Your task to perform on an android device: Search for usb-c to usb-a on ebay.com, select the first entry, and add it to the cart. Image 0: 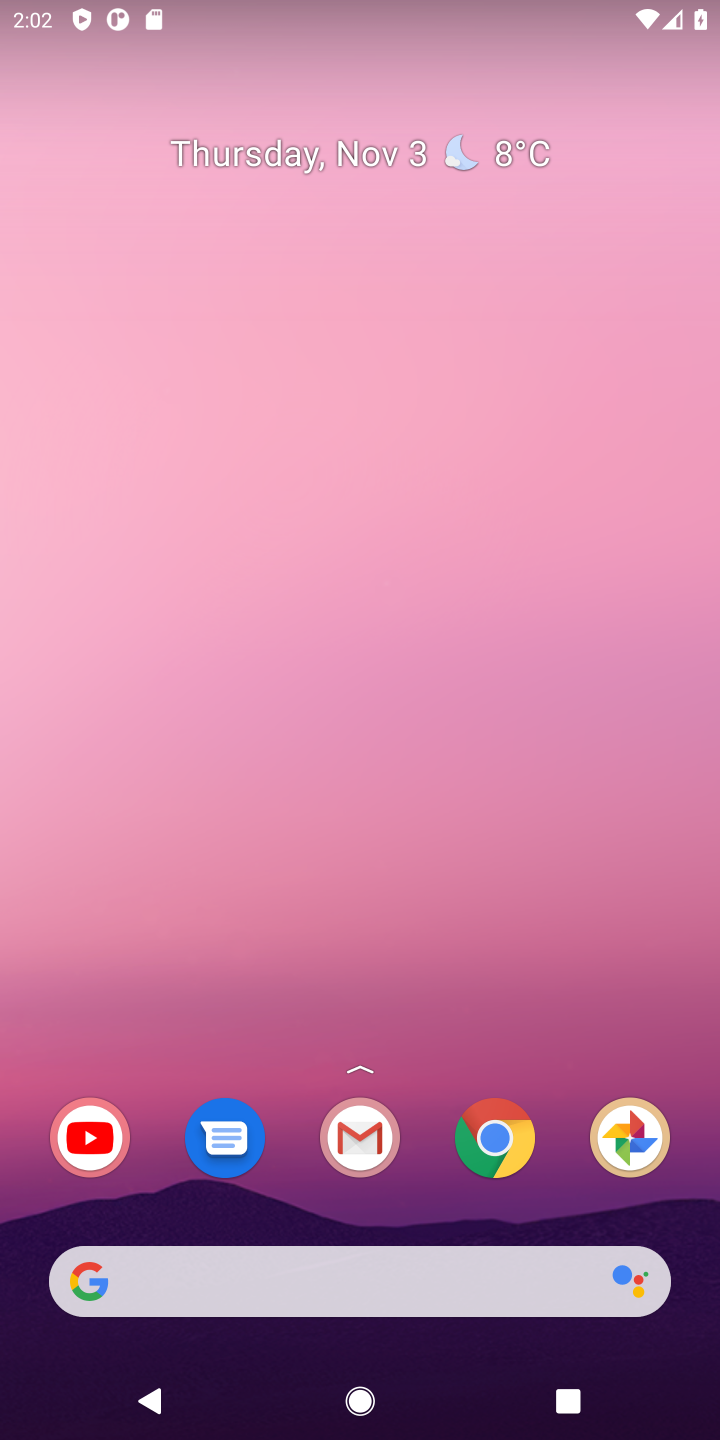
Step 0: click (452, 1156)
Your task to perform on an android device: Search for usb-c to usb-a on ebay.com, select the first entry, and add it to the cart. Image 1: 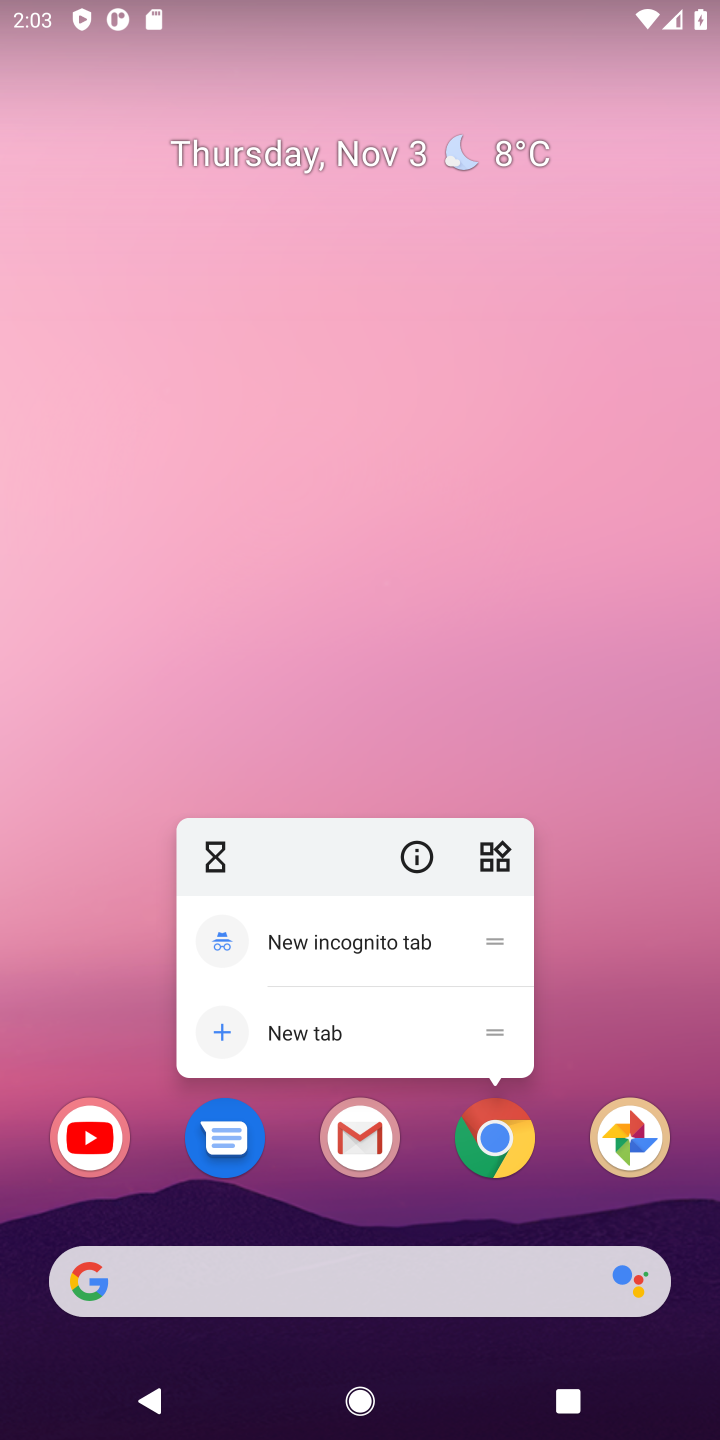
Step 1: click (500, 1135)
Your task to perform on an android device: Search for usb-c to usb-a on ebay.com, select the first entry, and add it to the cart. Image 2: 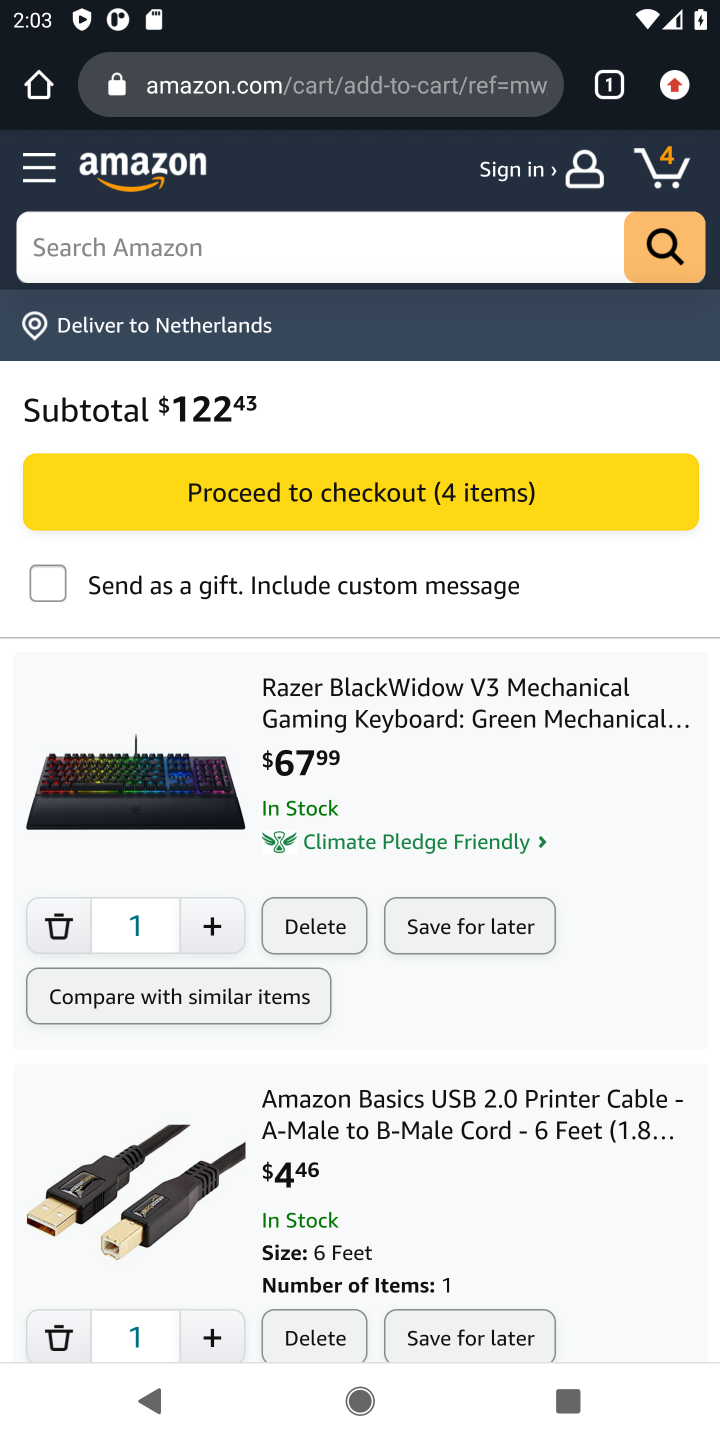
Step 2: click (229, 105)
Your task to perform on an android device: Search for usb-c to usb-a on ebay.com, select the first entry, and add it to the cart. Image 3: 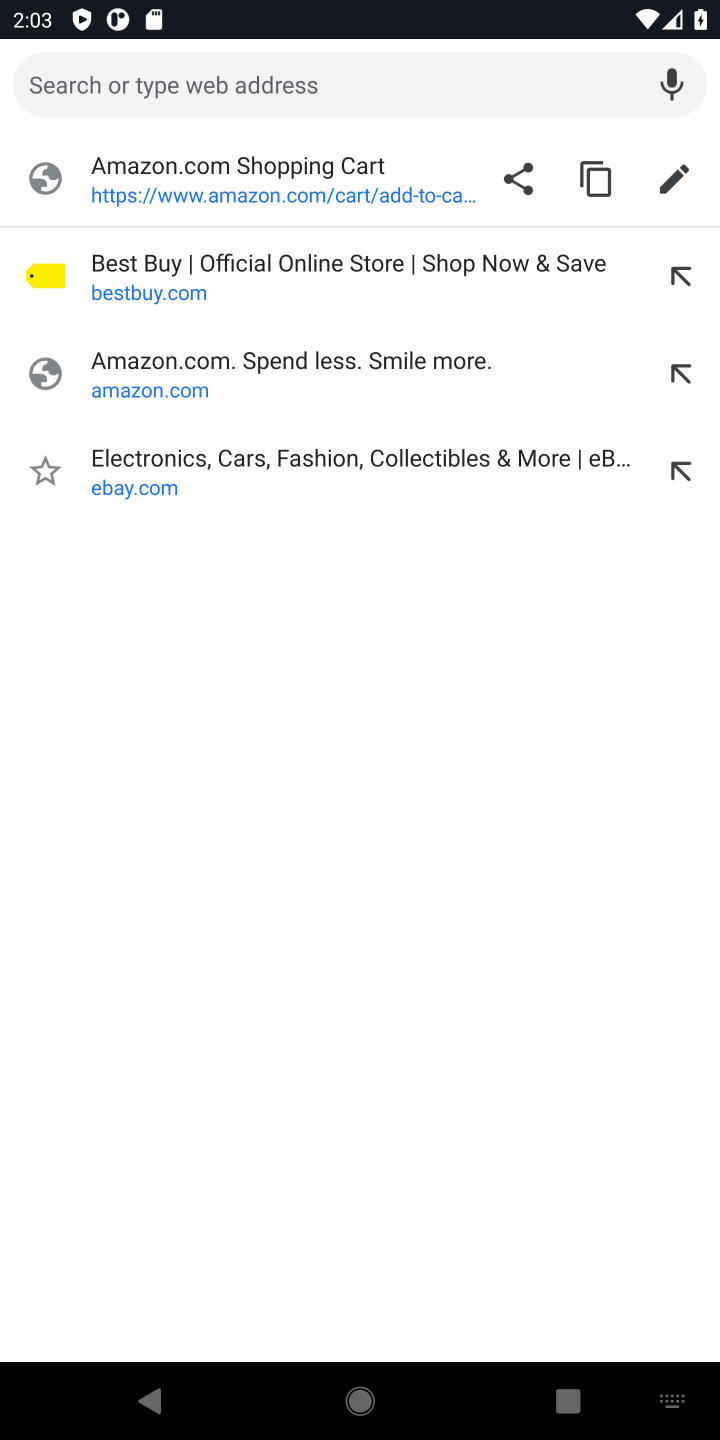
Step 3: type "ebay"
Your task to perform on an android device: Search for usb-c to usb-a on ebay.com, select the first entry, and add it to the cart. Image 4: 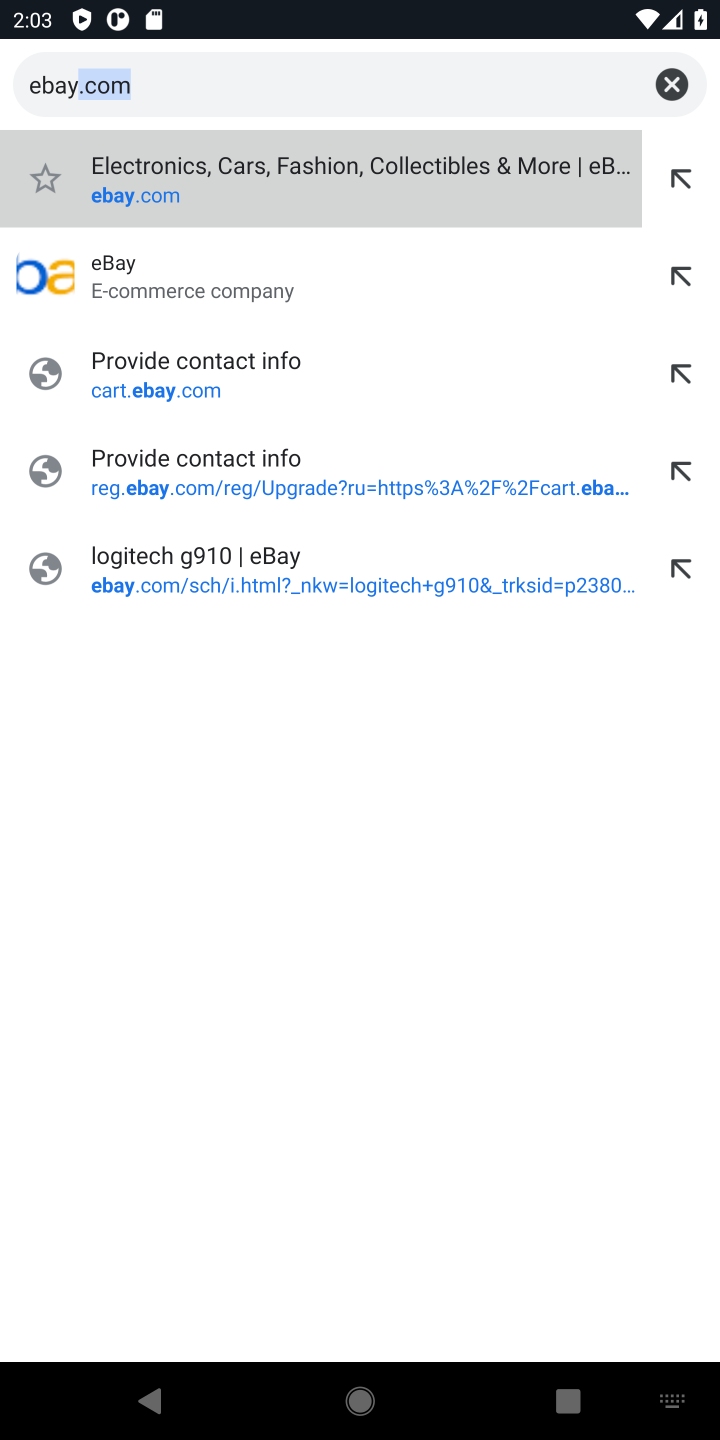
Step 4: click (195, 292)
Your task to perform on an android device: Search for usb-c to usb-a on ebay.com, select the first entry, and add it to the cart. Image 5: 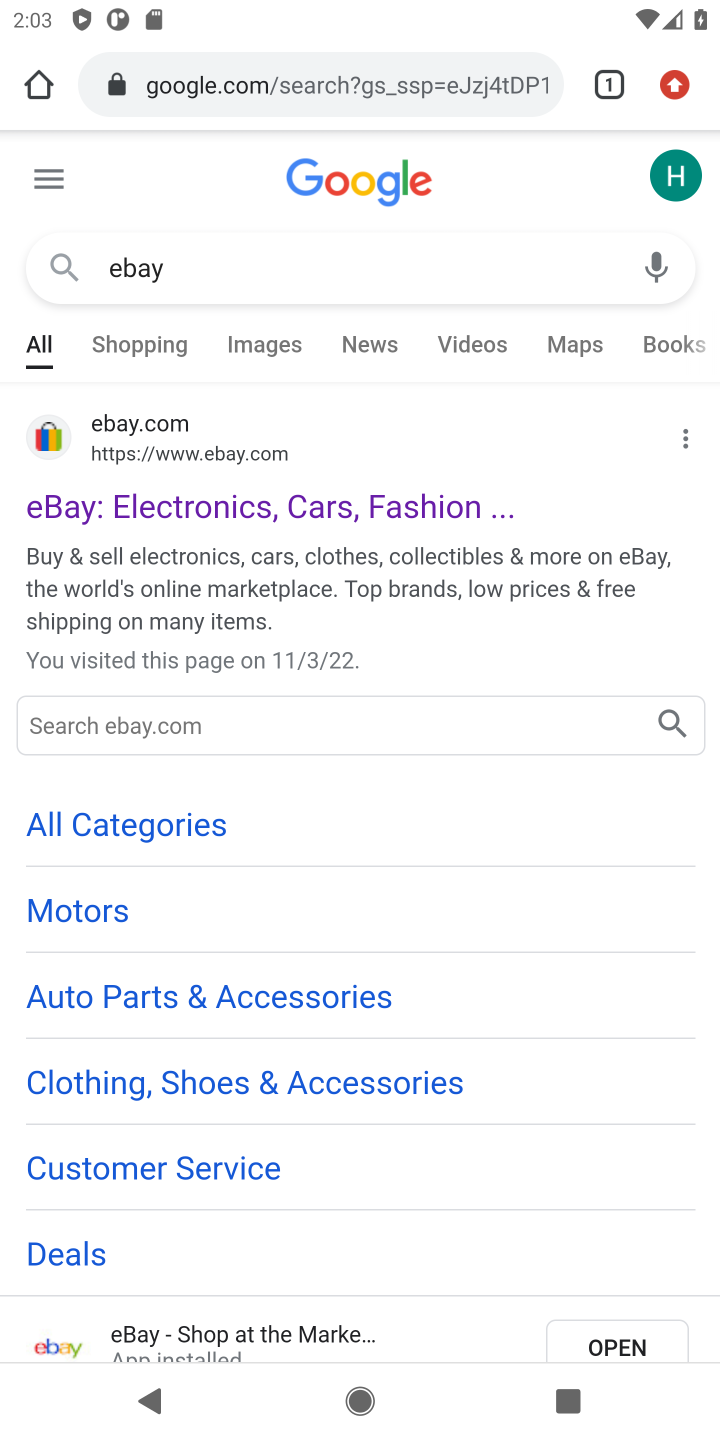
Step 5: click (313, 495)
Your task to perform on an android device: Search for usb-c to usb-a on ebay.com, select the first entry, and add it to the cart. Image 6: 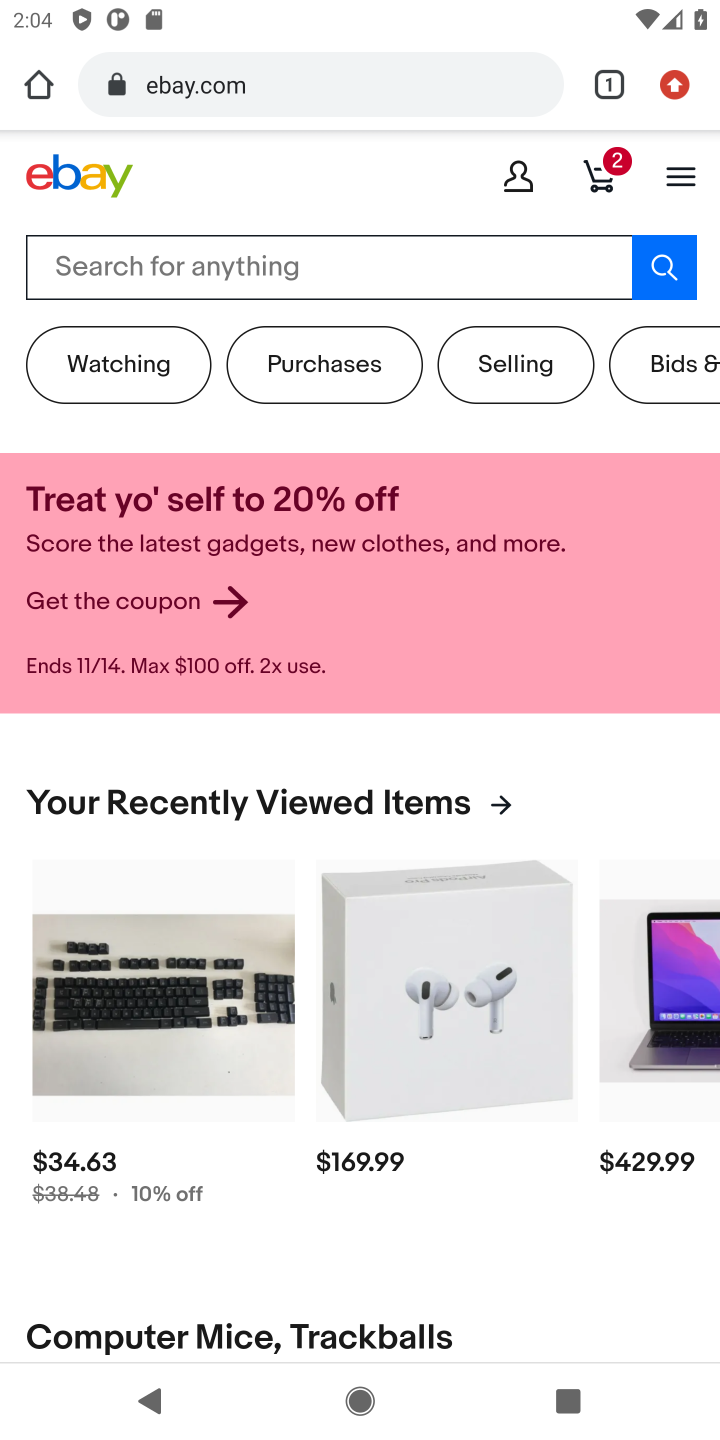
Step 6: type " usb-c to usb-a "
Your task to perform on an android device: Search for usb-c to usb-a on ebay.com, select the first entry, and add it to the cart. Image 7: 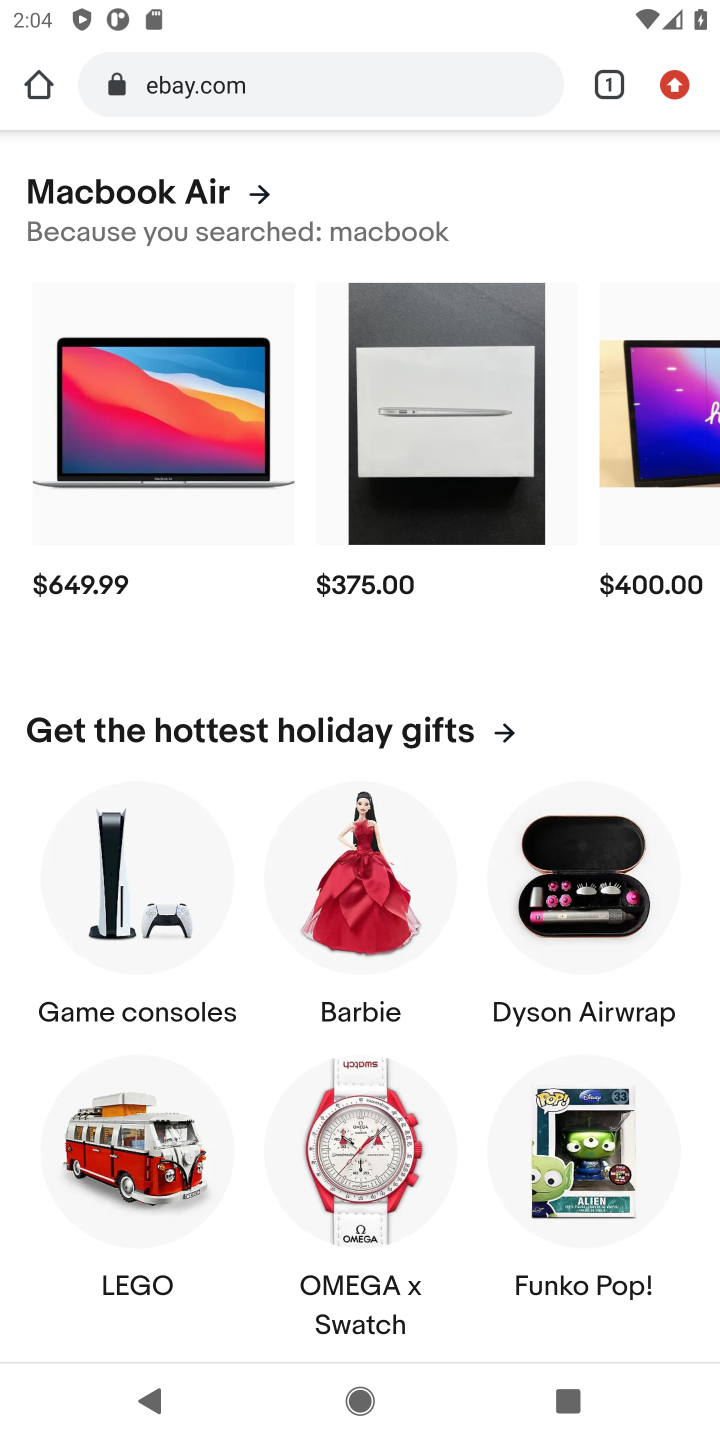
Step 7: drag from (362, 1123) to (342, 1222)
Your task to perform on an android device: Search for usb-c to usb-a on ebay.com, select the first entry, and add it to the cart. Image 8: 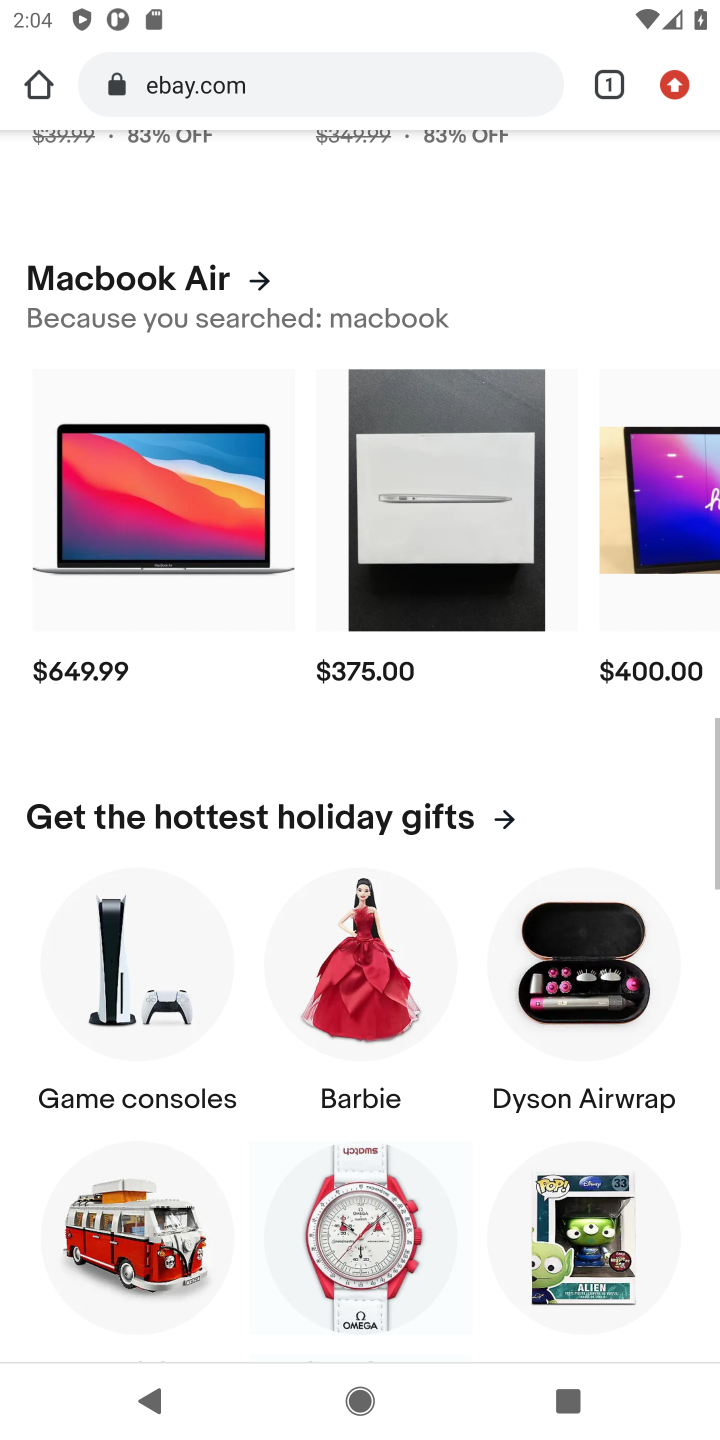
Step 8: drag from (439, 435) to (478, 1206)
Your task to perform on an android device: Search for usb-c to usb-a on ebay.com, select the first entry, and add it to the cart. Image 9: 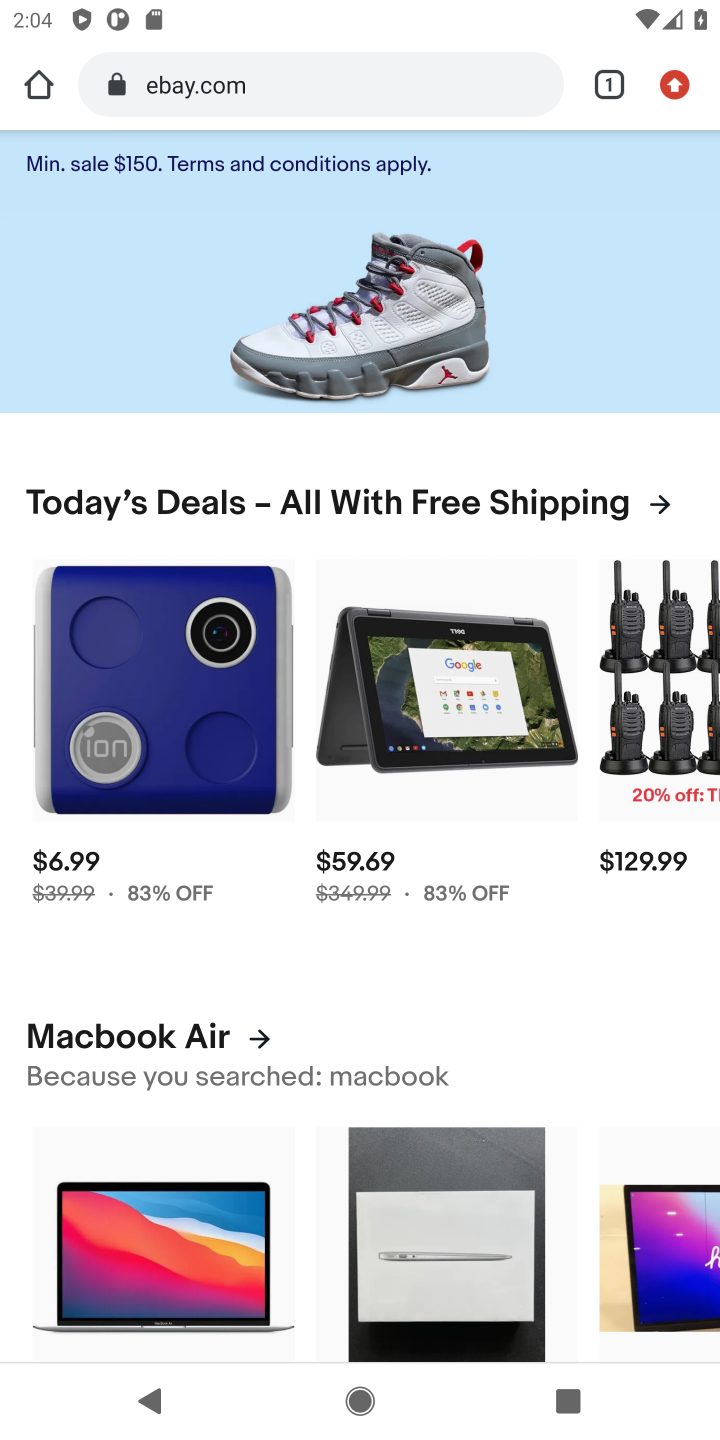
Step 9: drag from (233, 192) to (361, 1126)
Your task to perform on an android device: Search for usb-c to usb-a on ebay.com, select the first entry, and add it to the cart. Image 10: 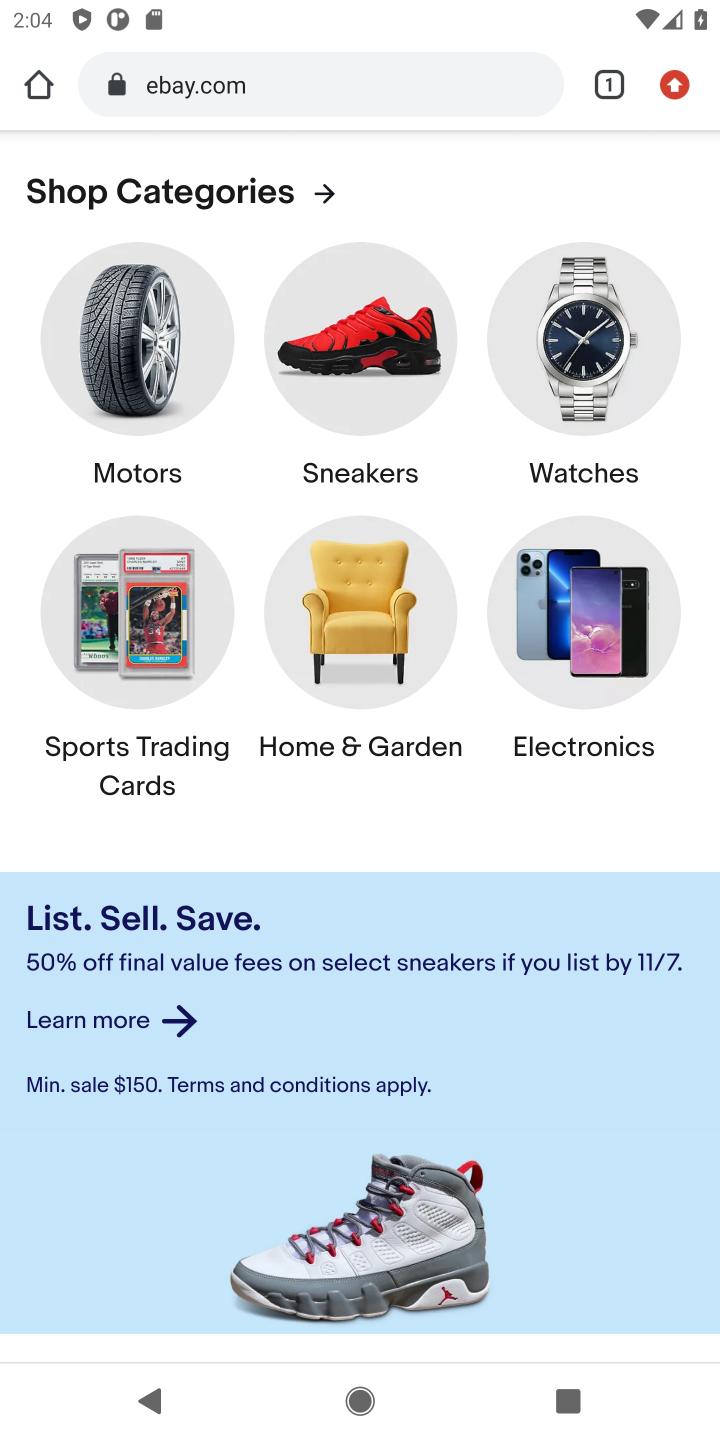
Step 10: drag from (296, 259) to (661, 1110)
Your task to perform on an android device: Search for usb-c to usb-a on ebay.com, select the first entry, and add it to the cart. Image 11: 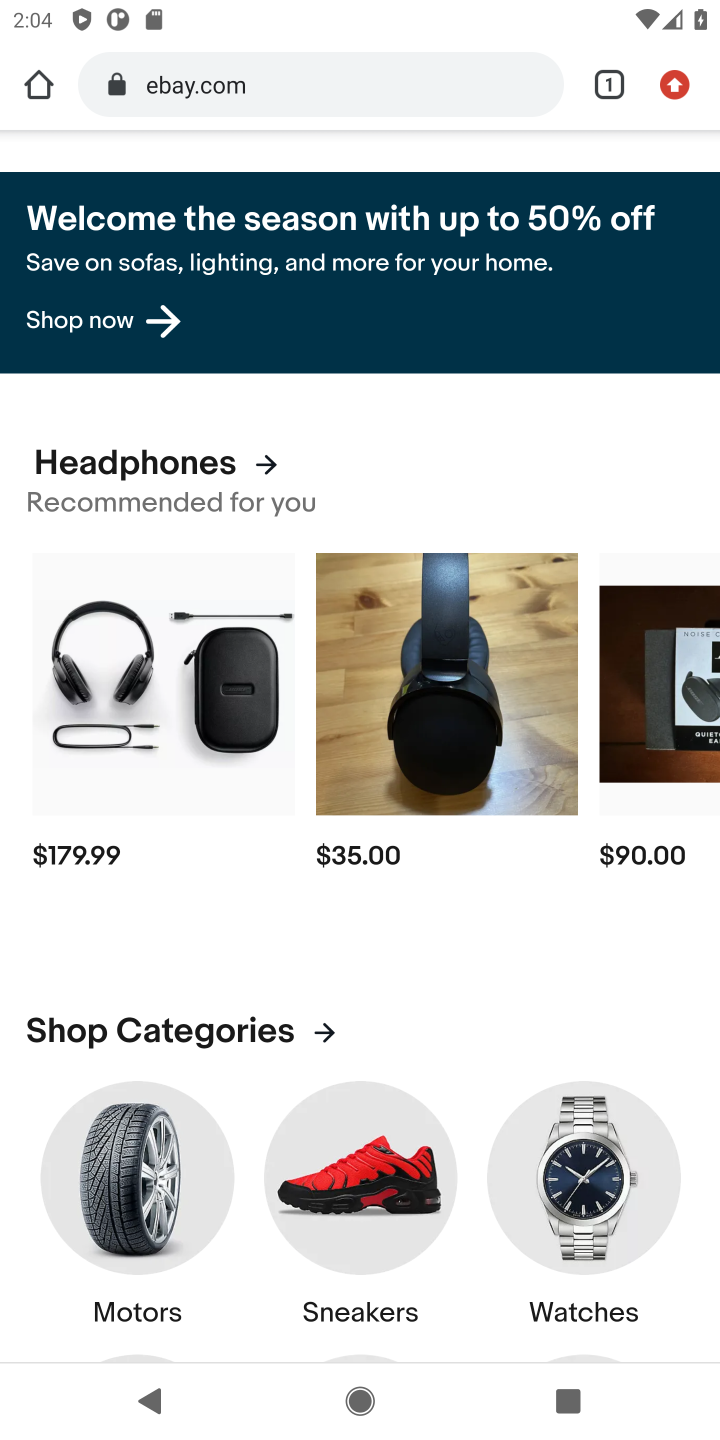
Step 11: press back button
Your task to perform on an android device: Search for usb-c to usb-a on ebay.com, select the first entry, and add it to the cart. Image 12: 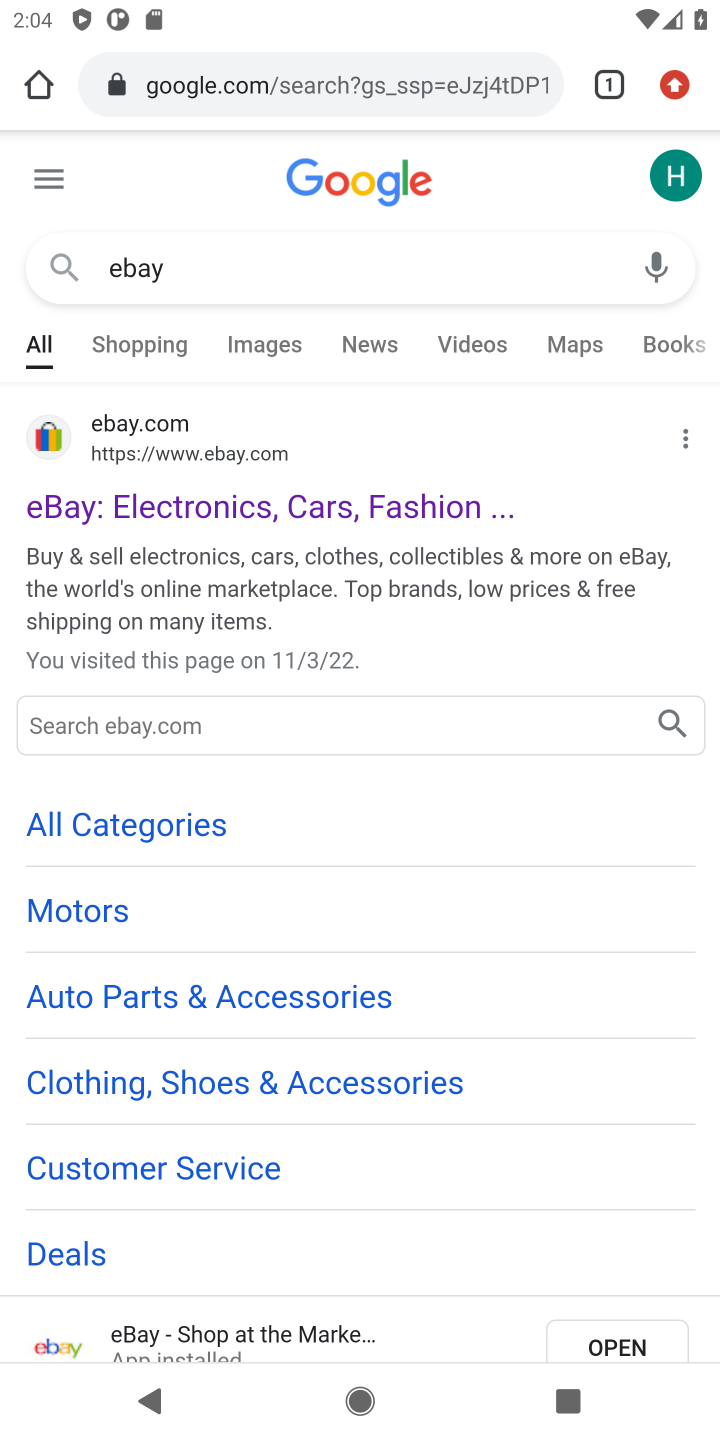
Step 12: click (52, 497)
Your task to perform on an android device: Search for usb-c to usb-a on ebay.com, select the first entry, and add it to the cart. Image 13: 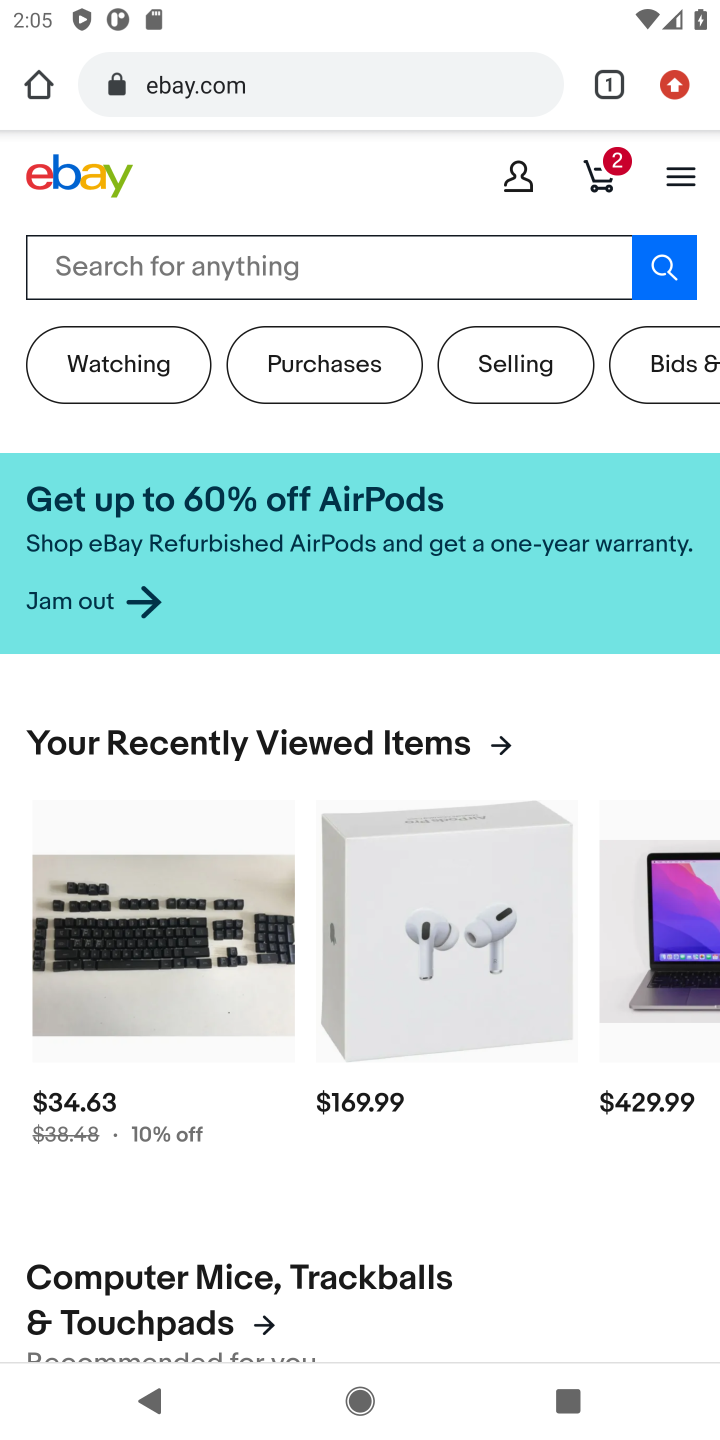
Step 13: click (403, 243)
Your task to perform on an android device: Search for usb-c to usb-a on ebay.com, select the first entry, and add it to the cart. Image 14: 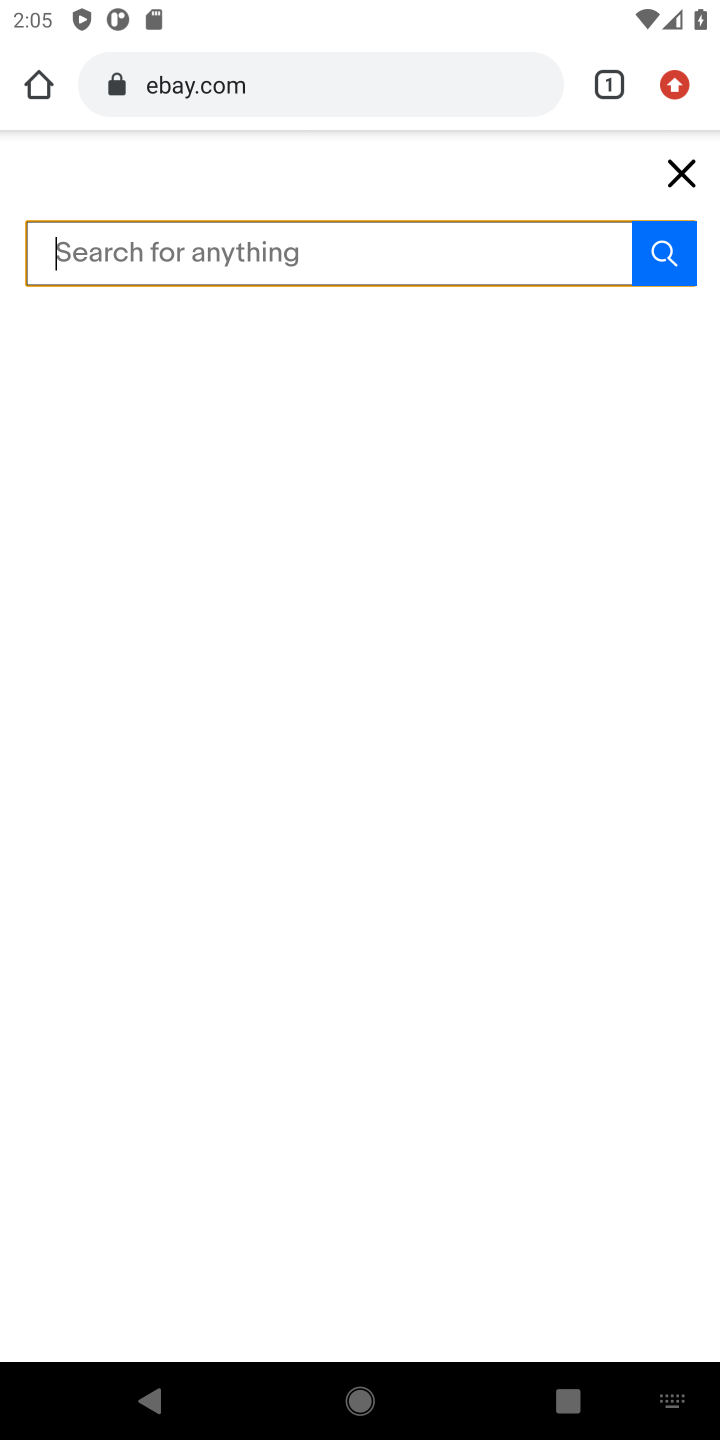
Step 14: type " usb-c to usb-a"
Your task to perform on an android device: Search for usb-c to usb-a on ebay.com, select the first entry, and add it to the cart. Image 15: 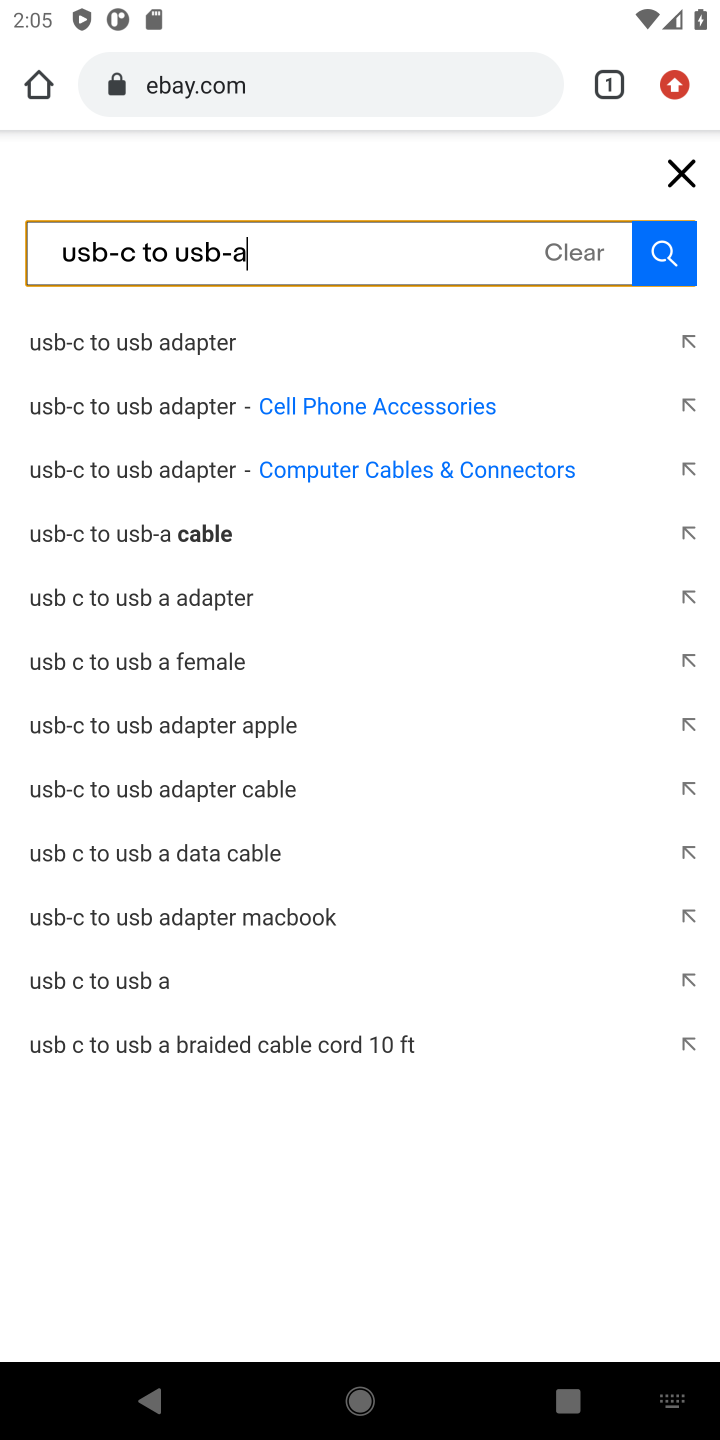
Step 15: click (638, 264)
Your task to perform on an android device: Search for usb-c to usb-a on ebay.com, select the first entry, and add it to the cart. Image 16: 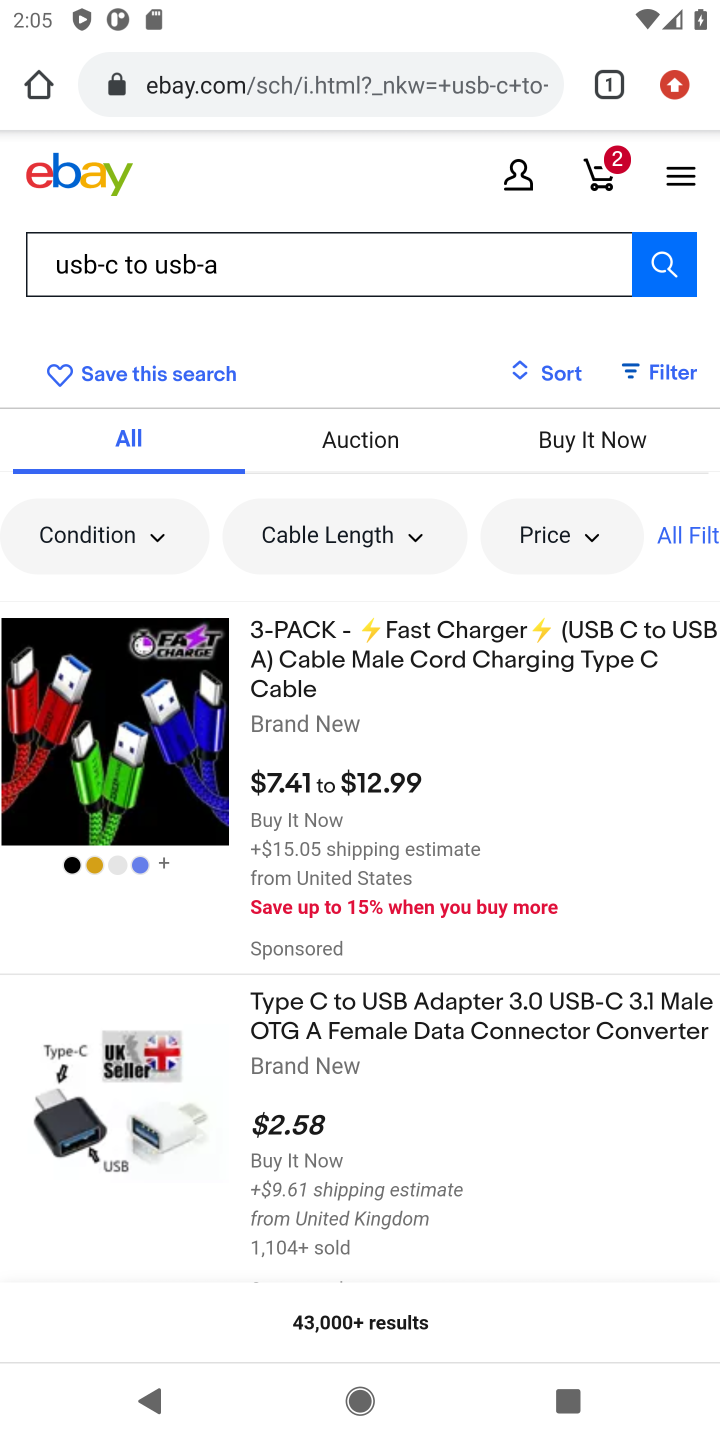
Step 16: click (543, 651)
Your task to perform on an android device: Search for usb-c to usb-a on ebay.com, select the first entry, and add it to the cart. Image 17: 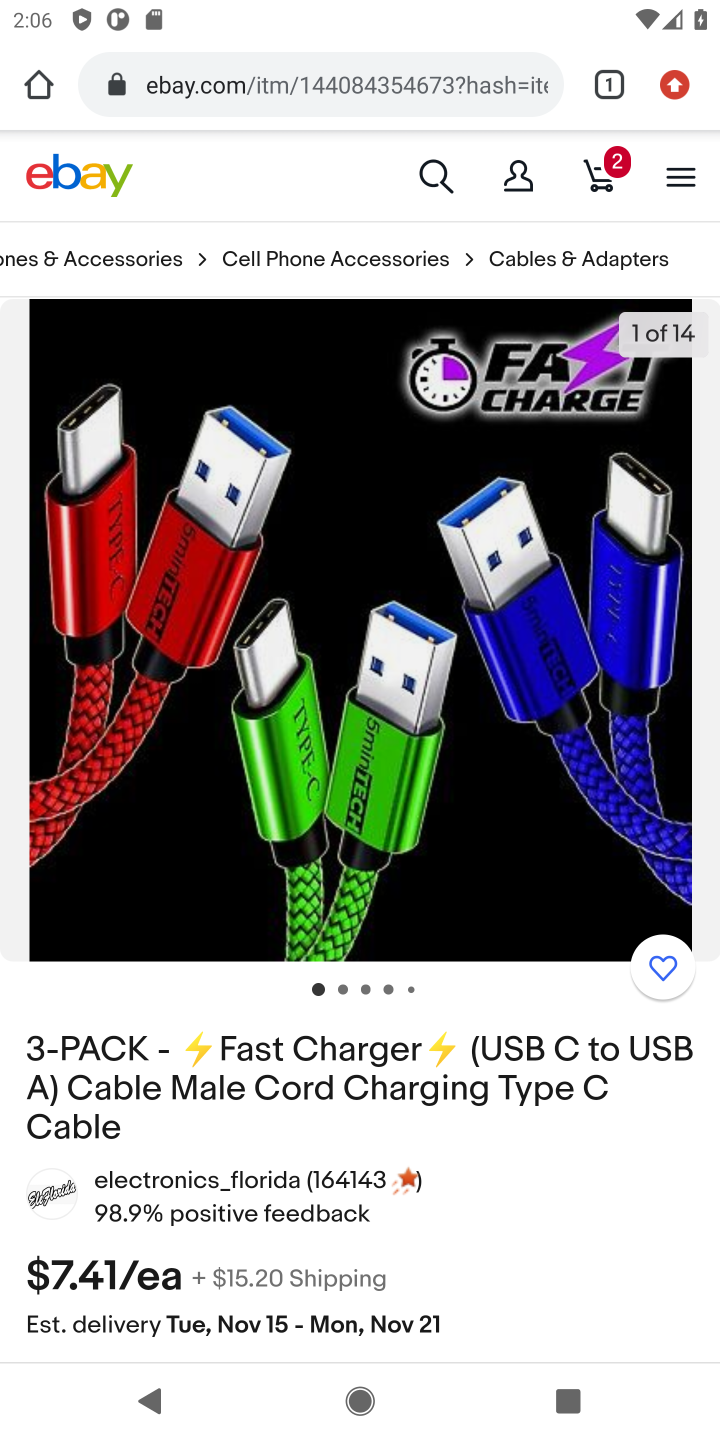
Step 17: drag from (290, 1302) to (330, 268)
Your task to perform on an android device: Search for usb-c to usb-a on ebay.com, select the first entry, and add it to the cart. Image 18: 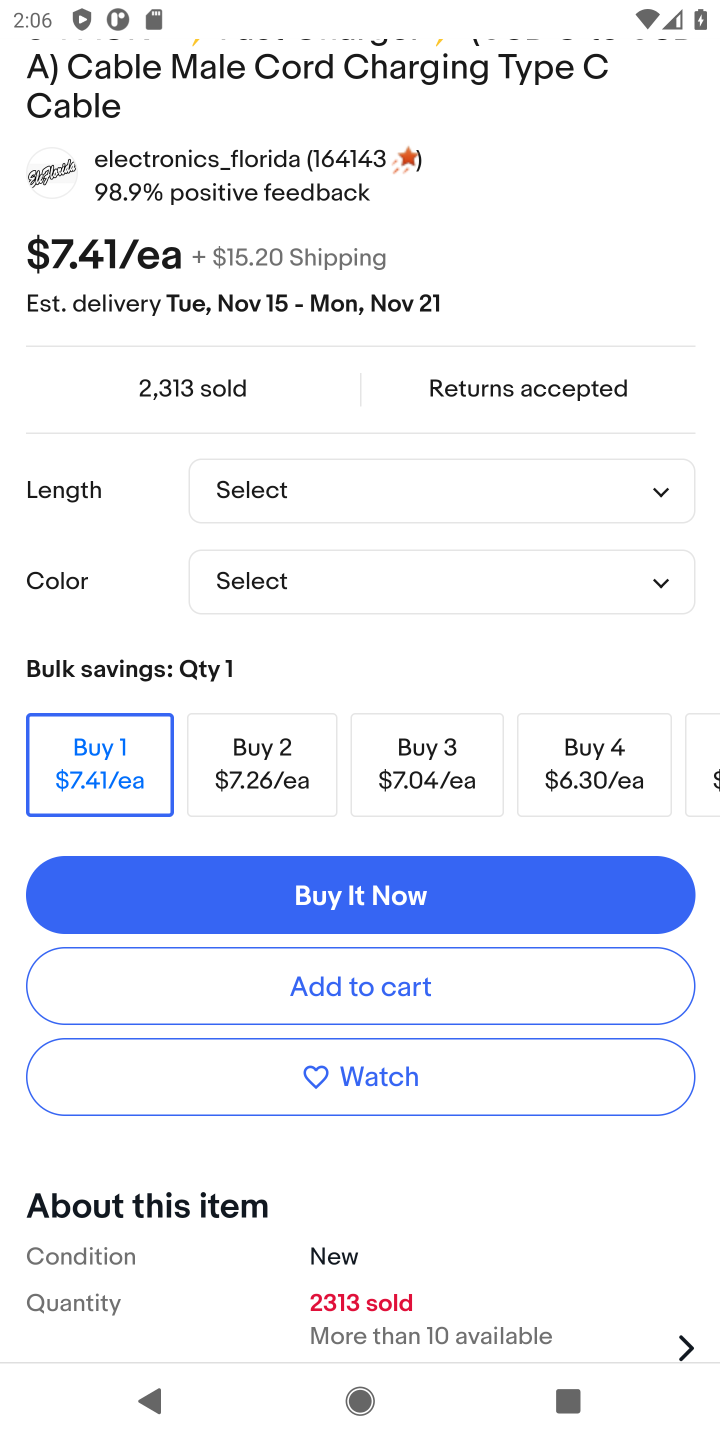
Step 18: click (300, 1009)
Your task to perform on an android device: Search for usb-c to usb-a on ebay.com, select the first entry, and add it to the cart. Image 19: 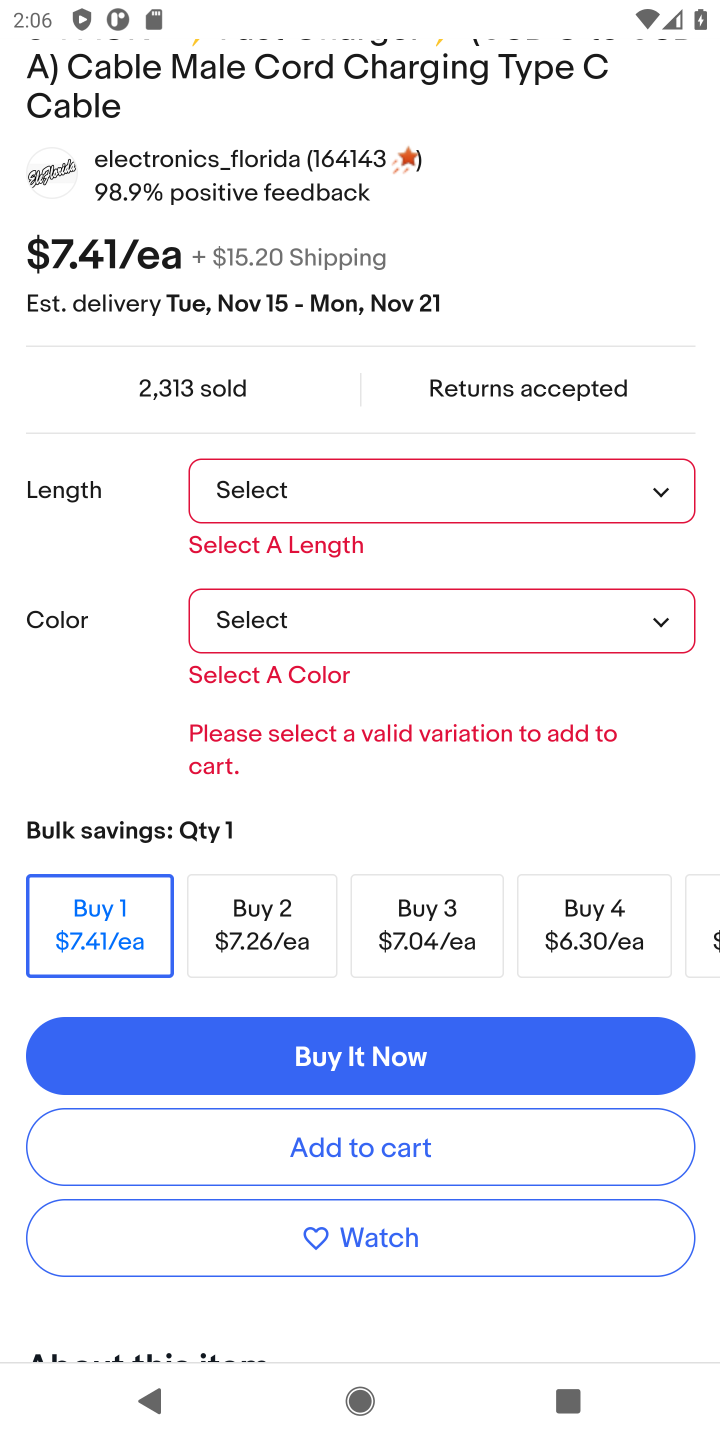
Step 19: click (402, 1131)
Your task to perform on an android device: Search for usb-c to usb-a on ebay.com, select the first entry, and add it to the cart. Image 20: 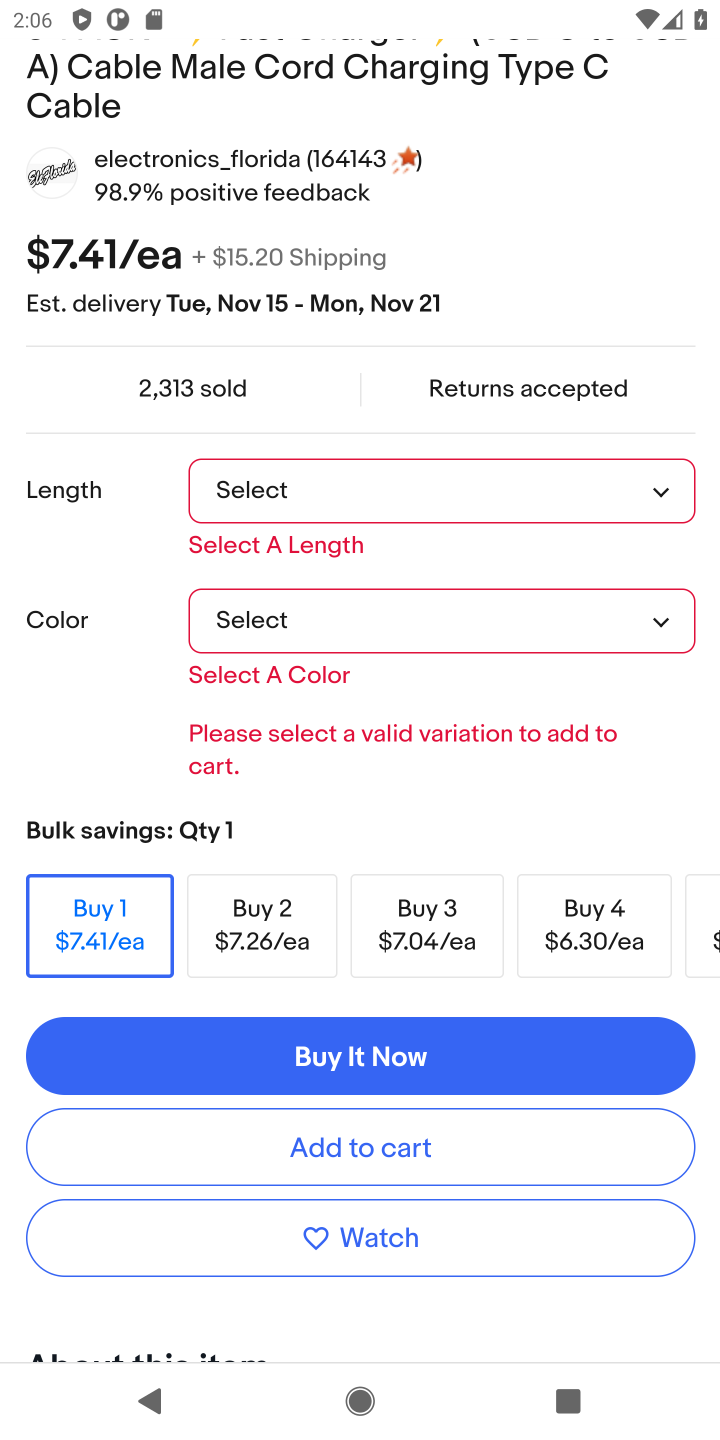
Step 20: click (448, 1132)
Your task to perform on an android device: Search for usb-c to usb-a on ebay.com, select the first entry, and add it to the cart. Image 21: 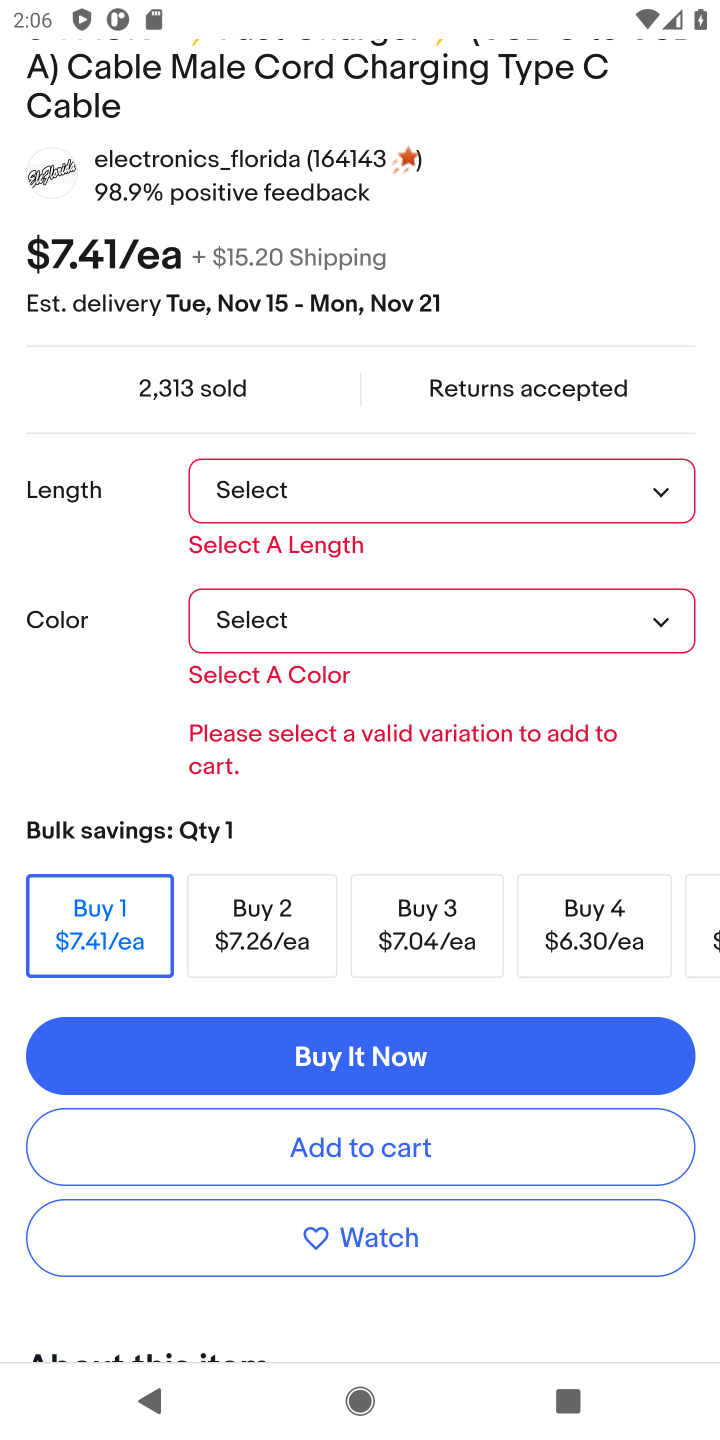
Step 21: click (448, 1132)
Your task to perform on an android device: Search for usb-c to usb-a on ebay.com, select the first entry, and add it to the cart. Image 22: 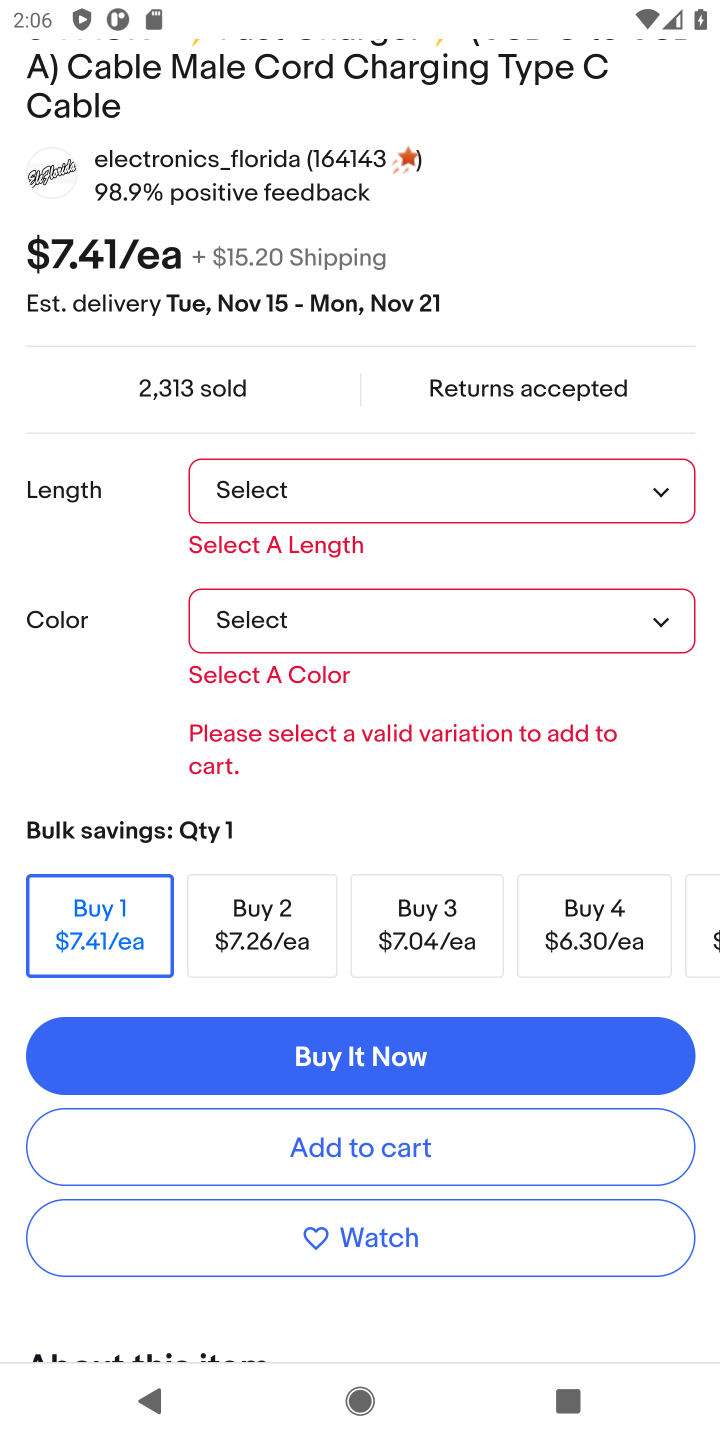
Step 22: click (626, 468)
Your task to perform on an android device: Search for usb-c to usb-a on ebay.com, select the first entry, and add it to the cart. Image 23: 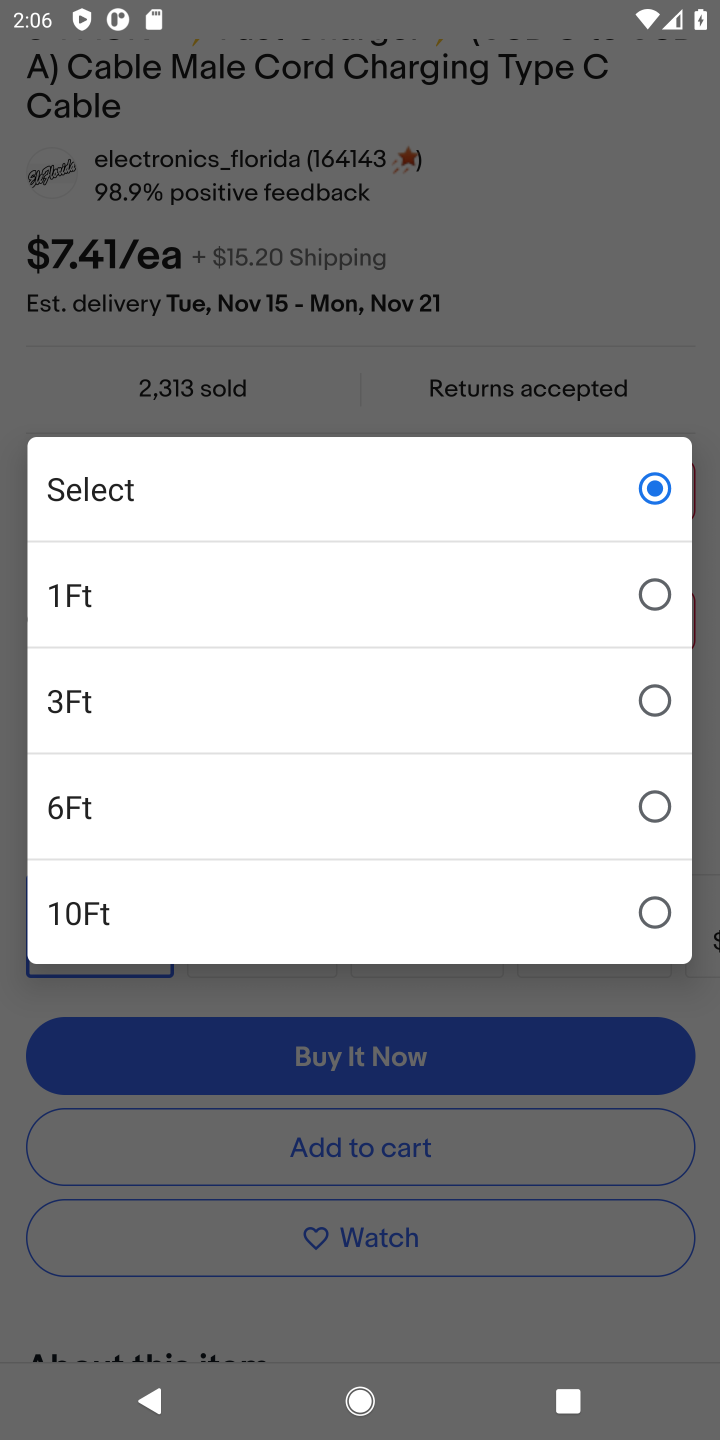
Step 23: click (560, 472)
Your task to perform on an android device: Search for usb-c to usb-a on ebay.com, select the first entry, and add it to the cart. Image 24: 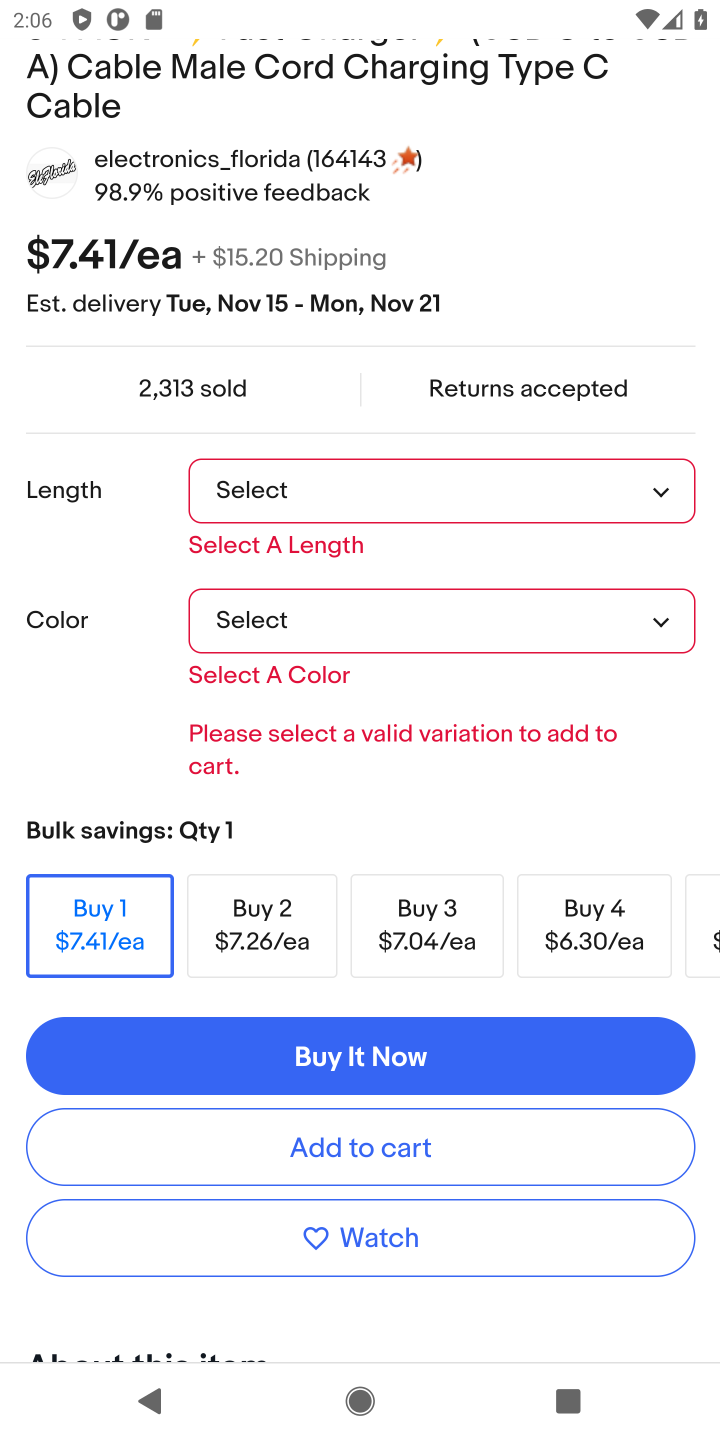
Step 24: click (560, 472)
Your task to perform on an android device: Search for usb-c to usb-a on ebay.com, select the first entry, and add it to the cart. Image 25: 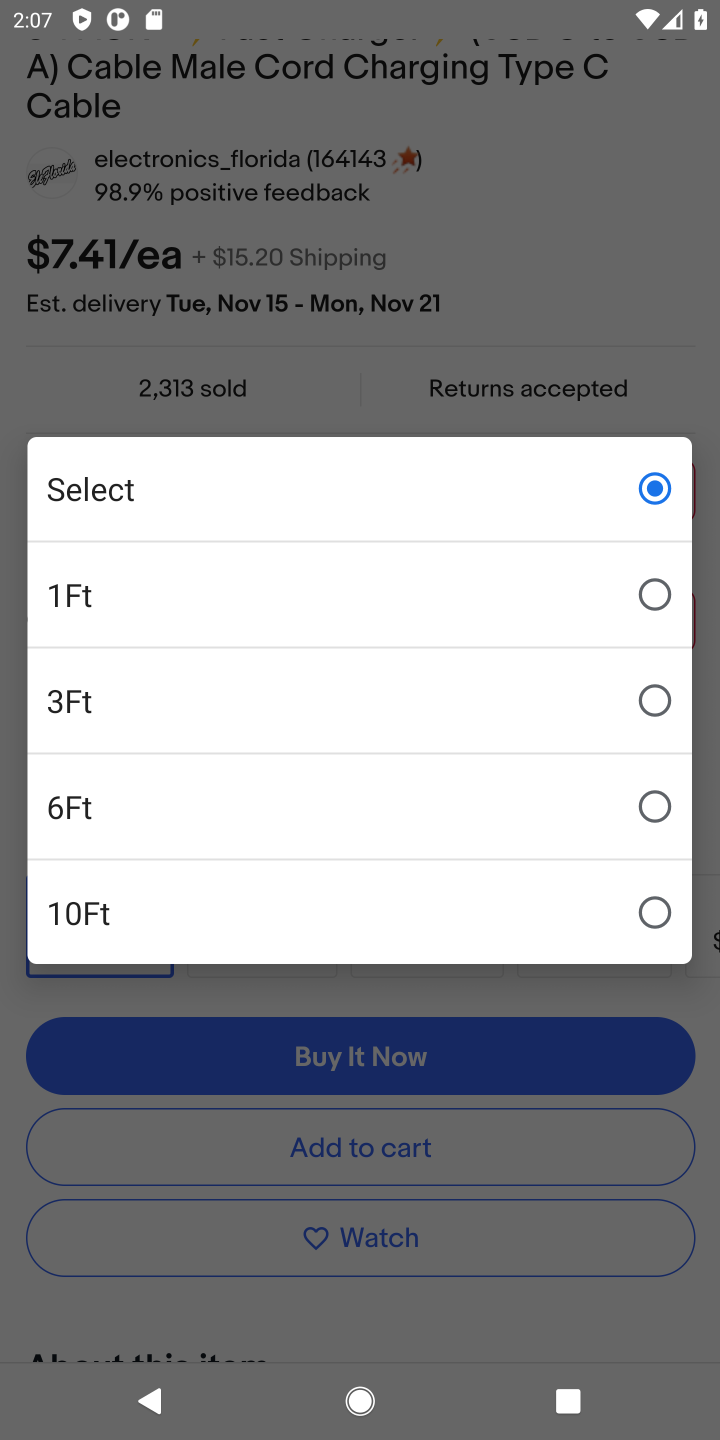
Step 25: click (553, 912)
Your task to perform on an android device: Search for usb-c to usb-a on ebay.com, select the first entry, and add it to the cart. Image 26: 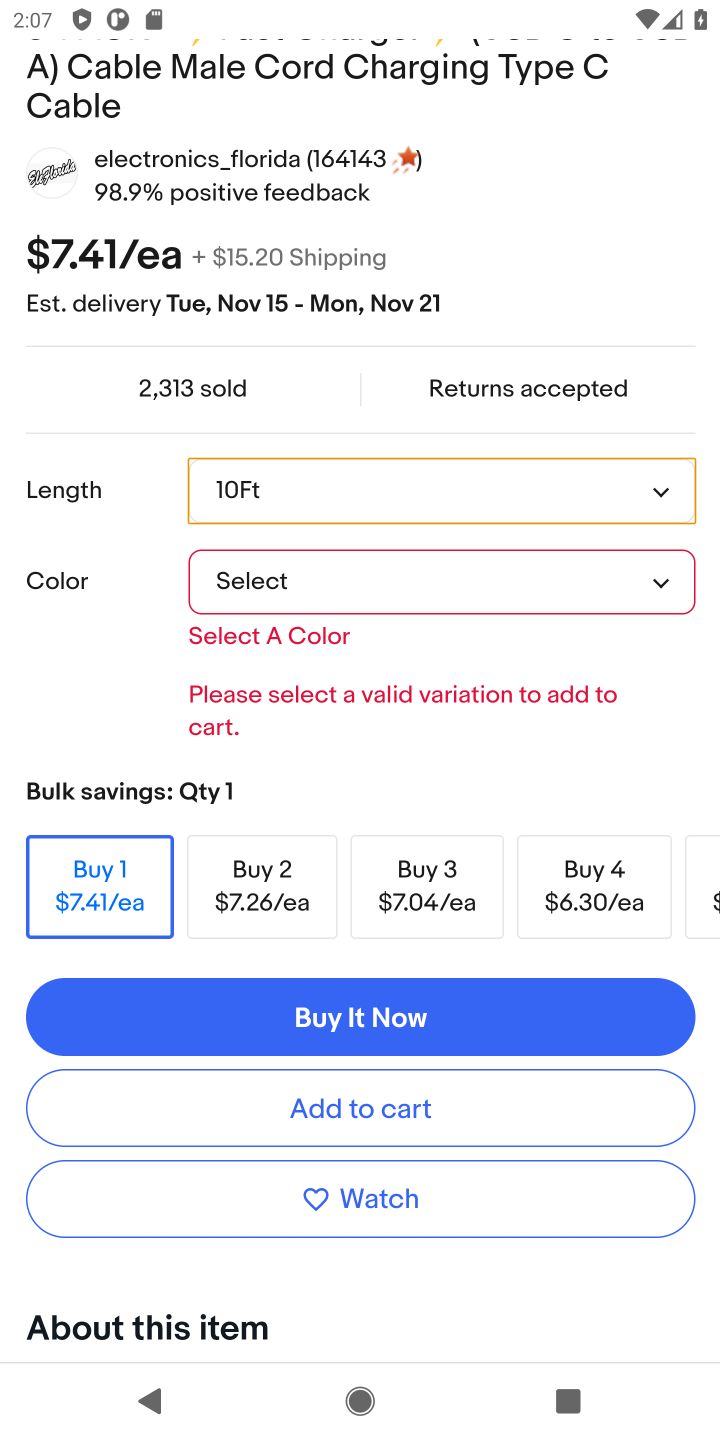
Step 26: click (341, 590)
Your task to perform on an android device: Search for usb-c to usb-a on ebay.com, select the first entry, and add it to the cart. Image 27: 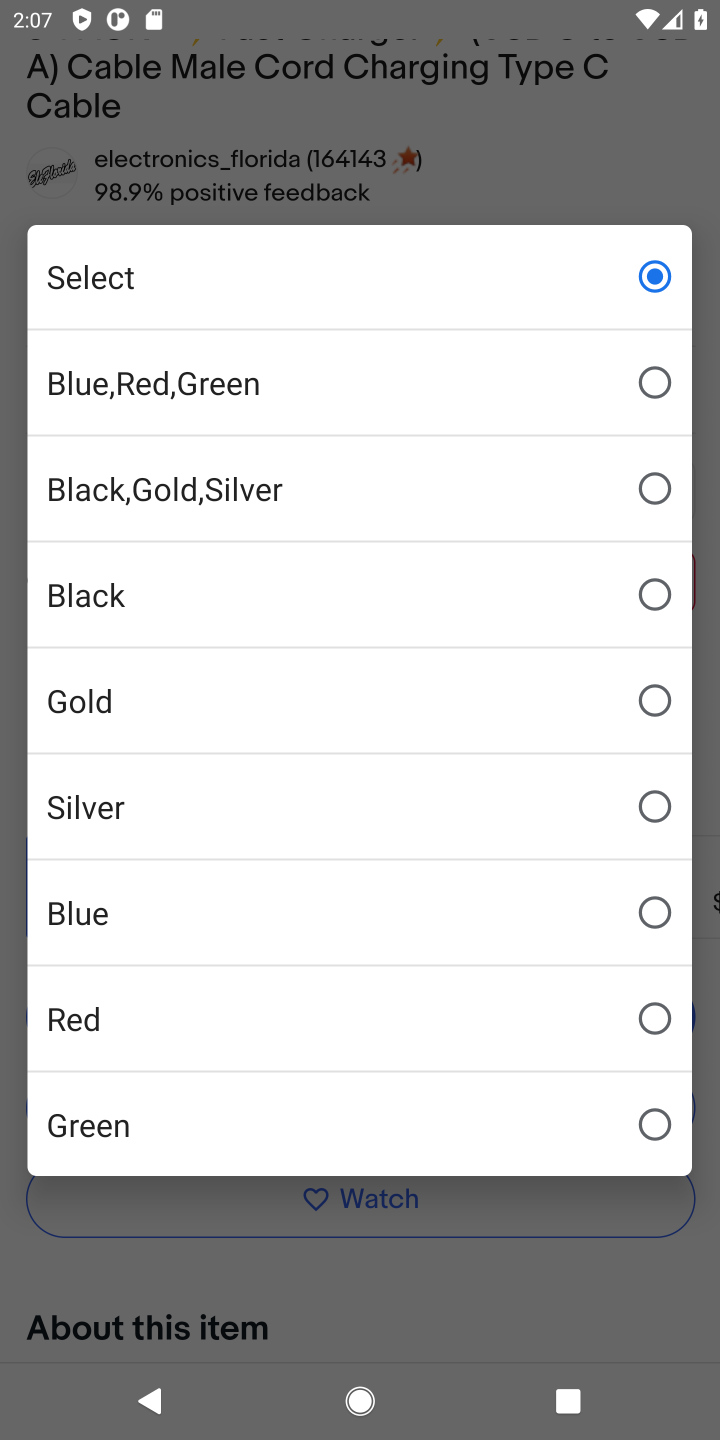
Step 27: click (311, 1095)
Your task to perform on an android device: Search for usb-c to usb-a on ebay.com, select the first entry, and add it to the cart. Image 28: 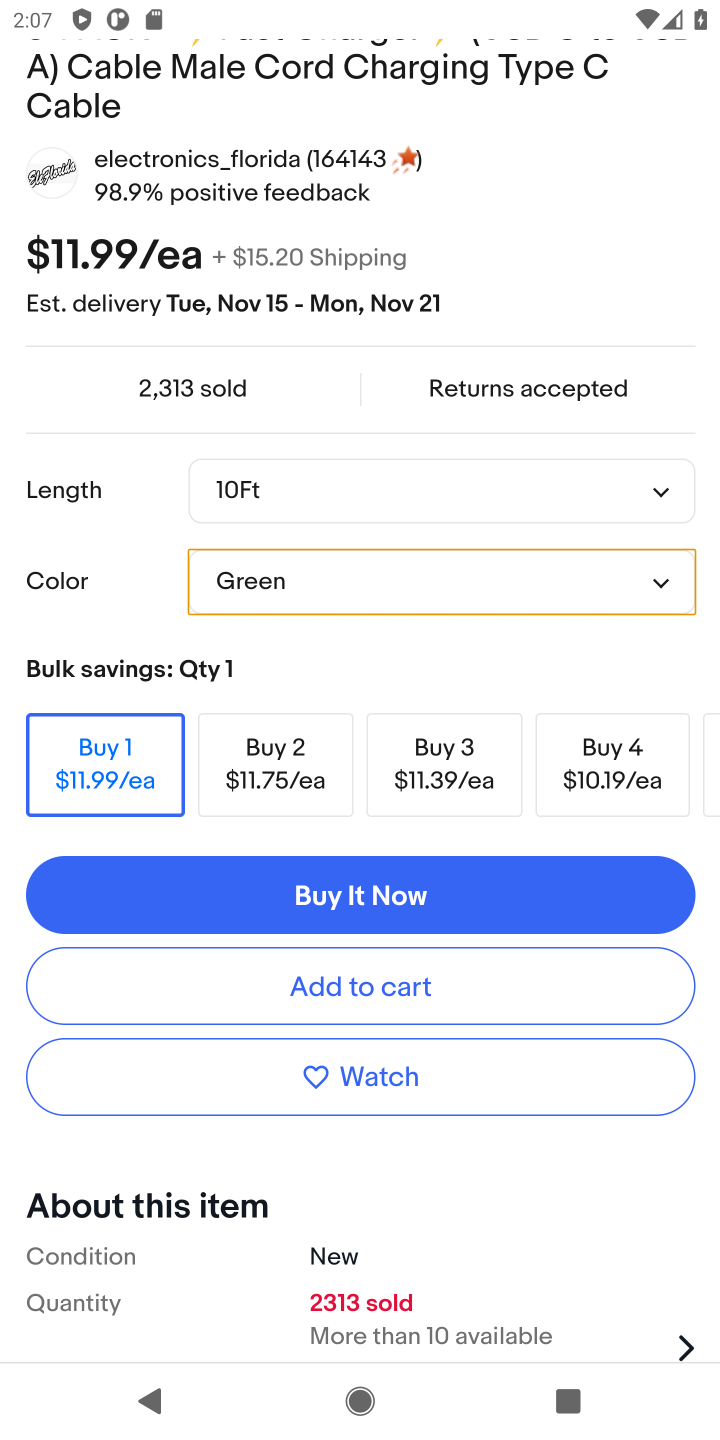
Step 28: click (287, 978)
Your task to perform on an android device: Search for usb-c to usb-a on ebay.com, select the first entry, and add it to the cart. Image 29: 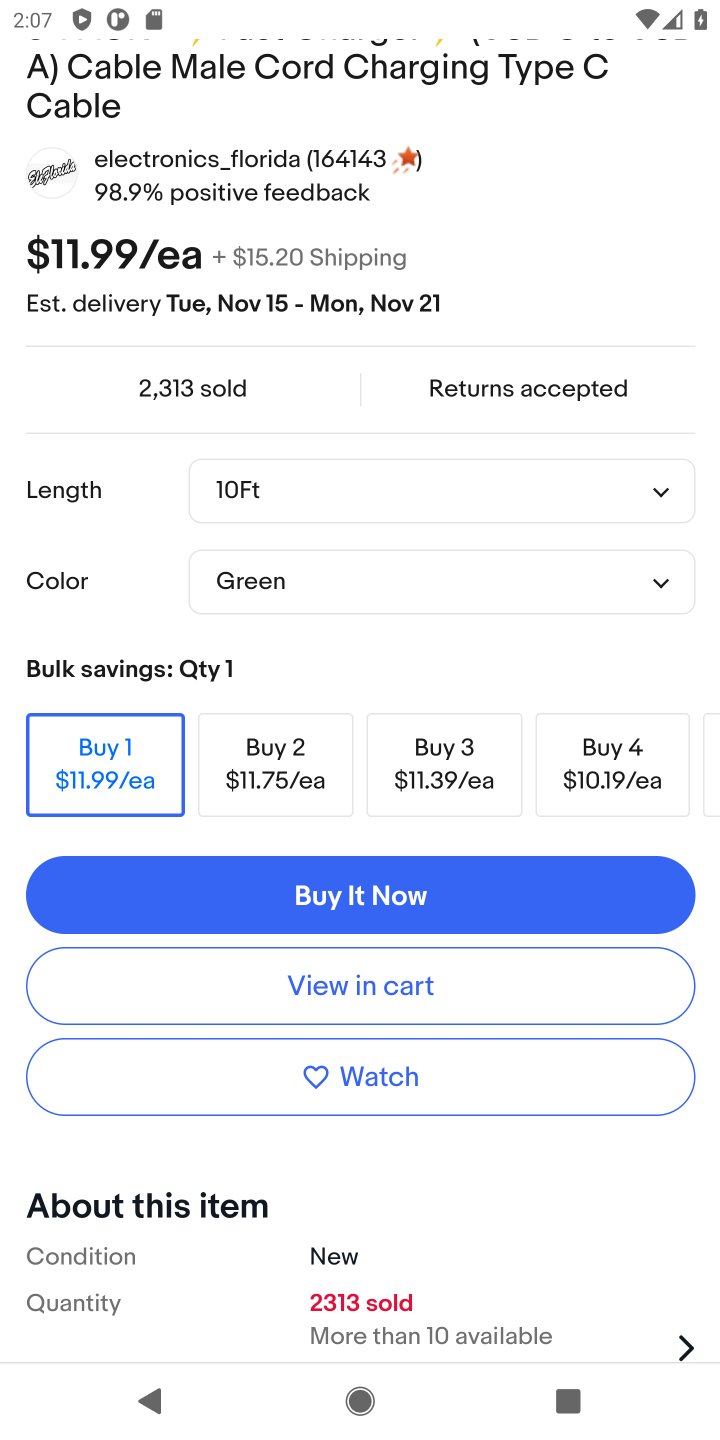
Step 29: task complete